Your task to perform on an android device: turn smart compose on in the gmail app Image 0: 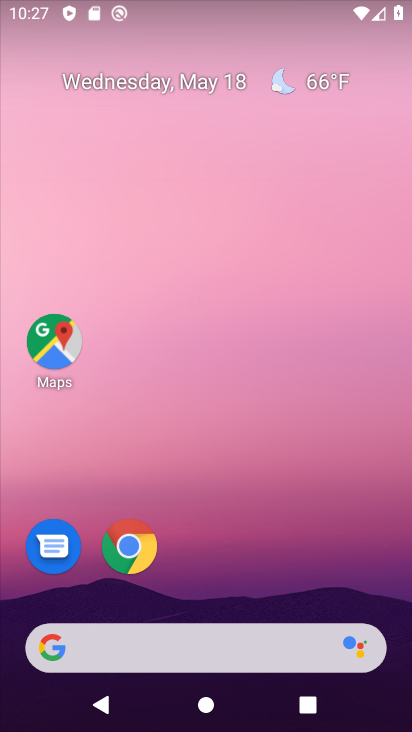
Step 0: drag from (189, 608) to (294, 59)
Your task to perform on an android device: turn smart compose on in the gmail app Image 1: 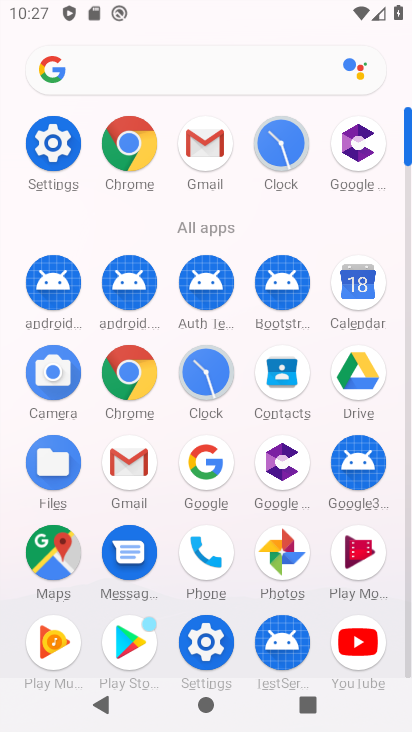
Step 1: click (205, 145)
Your task to perform on an android device: turn smart compose on in the gmail app Image 2: 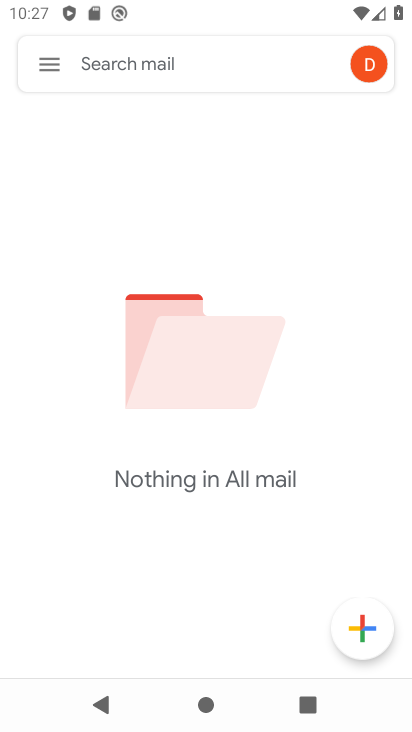
Step 2: click (53, 70)
Your task to perform on an android device: turn smart compose on in the gmail app Image 3: 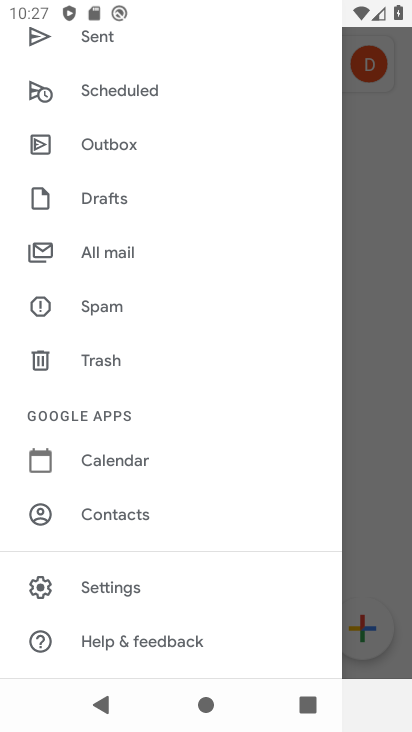
Step 3: click (130, 581)
Your task to perform on an android device: turn smart compose on in the gmail app Image 4: 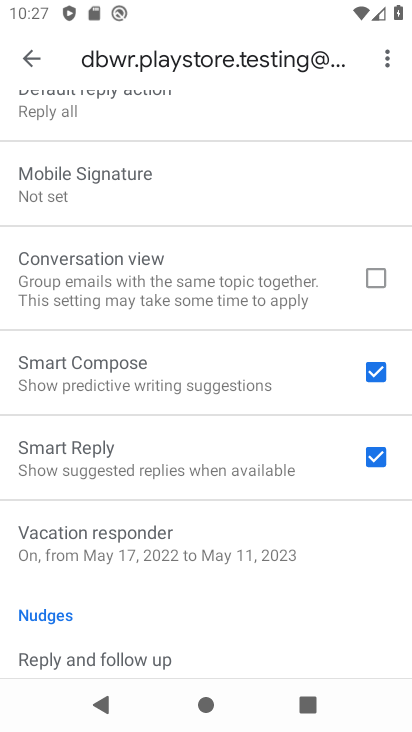
Step 4: task complete